Your task to perform on an android device: add a contact in the contacts app Image 0: 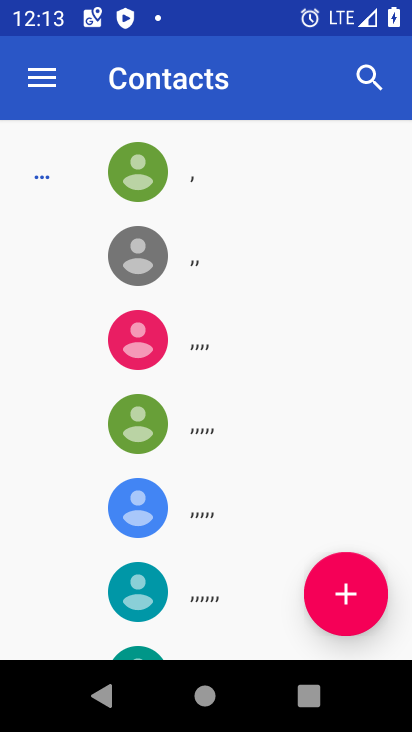
Step 0: press home button
Your task to perform on an android device: add a contact in the contacts app Image 1: 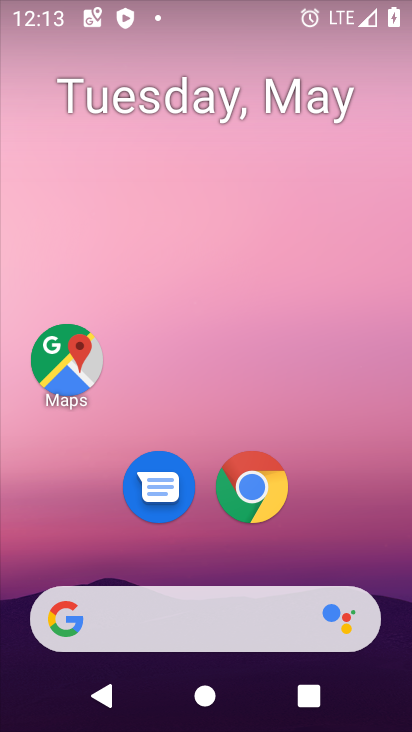
Step 1: drag from (18, 694) to (261, 140)
Your task to perform on an android device: add a contact in the contacts app Image 2: 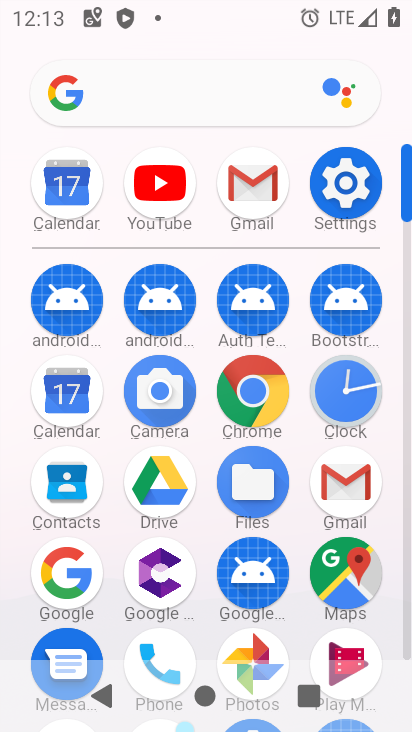
Step 2: click (147, 642)
Your task to perform on an android device: add a contact in the contacts app Image 3: 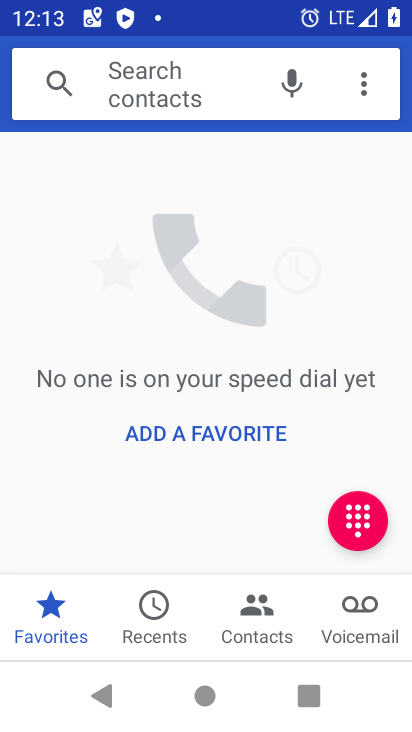
Step 3: click (260, 624)
Your task to perform on an android device: add a contact in the contacts app Image 4: 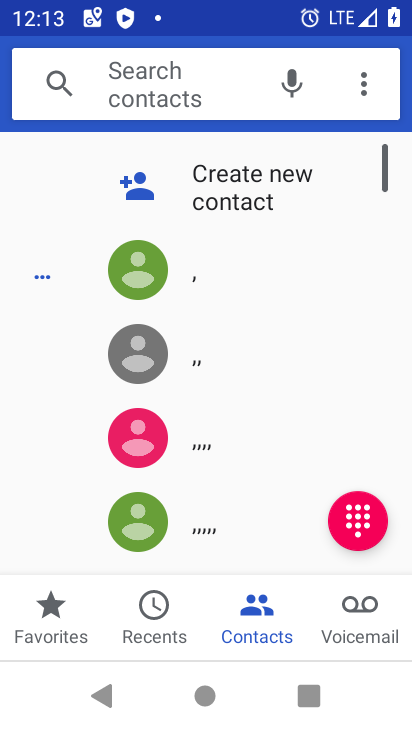
Step 4: click (176, 207)
Your task to perform on an android device: add a contact in the contacts app Image 5: 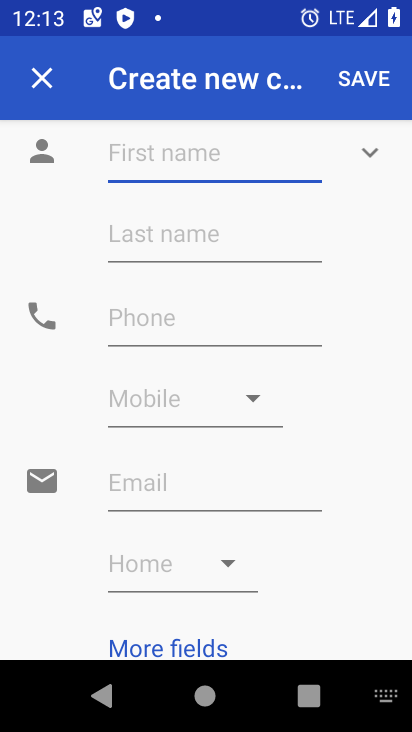
Step 5: click (245, 148)
Your task to perform on an android device: add a contact in the contacts app Image 6: 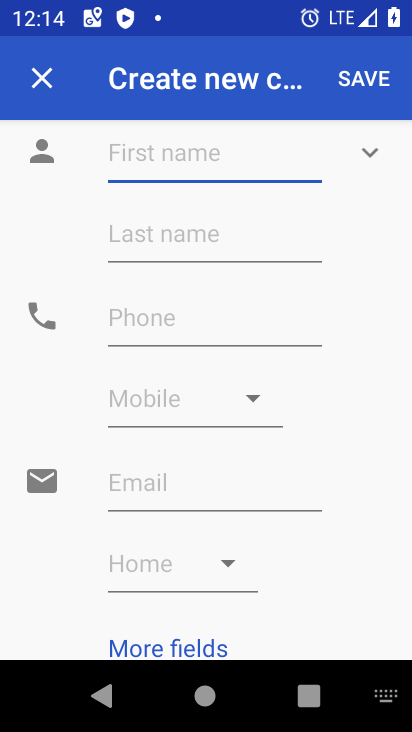
Step 6: type "sdeftgf"
Your task to perform on an android device: add a contact in the contacts app Image 7: 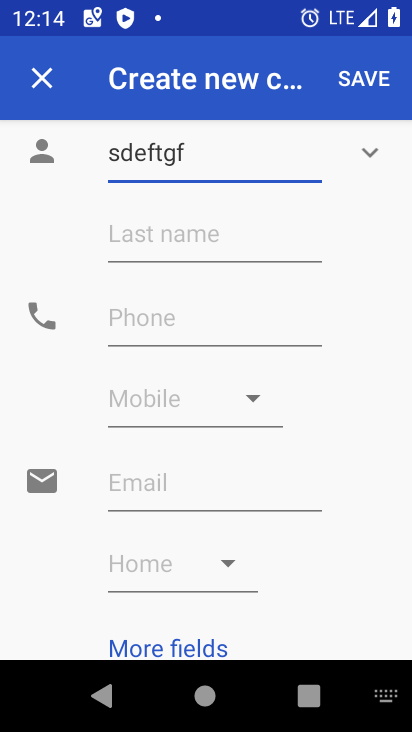
Step 7: click (377, 77)
Your task to perform on an android device: add a contact in the contacts app Image 8: 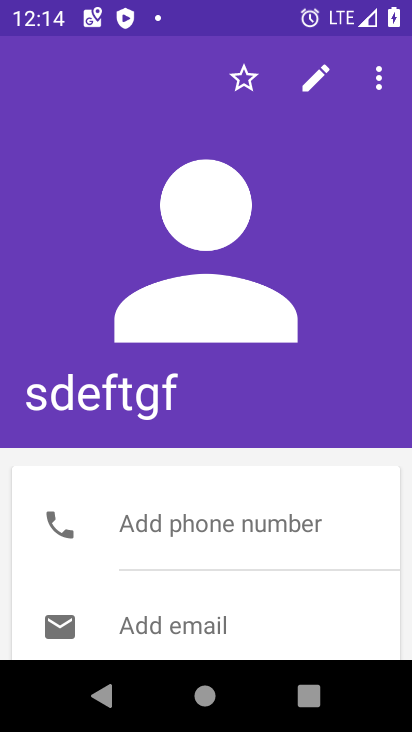
Step 8: task complete